Your task to perform on an android device: Go to Yahoo.com Image 0: 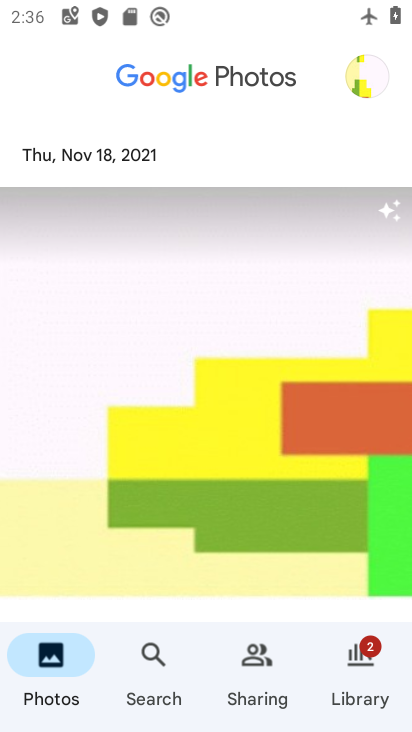
Step 0: press home button
Your task to perform on an android device: Go to Yahoo.com Image 1: 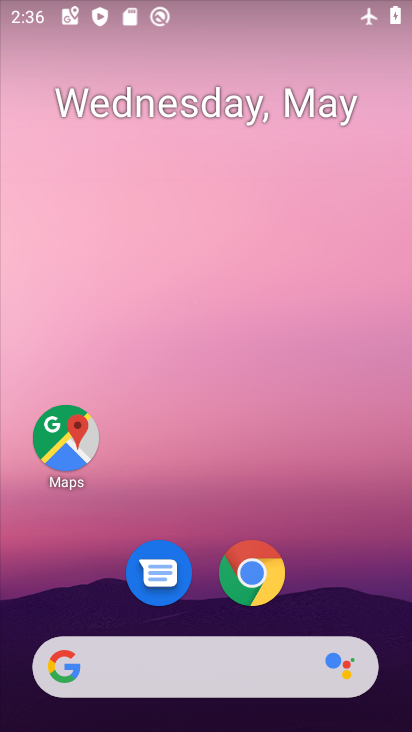
Step 1: click (256, 580)
Your task to perform on an android device: Go to Yahoo.com Image 2: 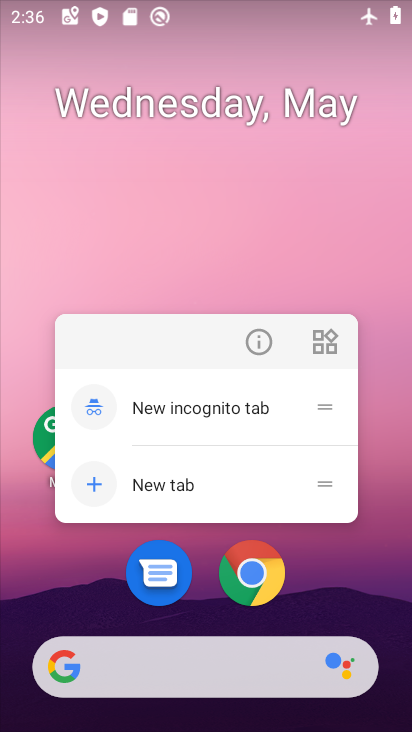
Step 2: click (245, 568)
Your task to perform on an android device: Go to Yahoo.com Image 3: 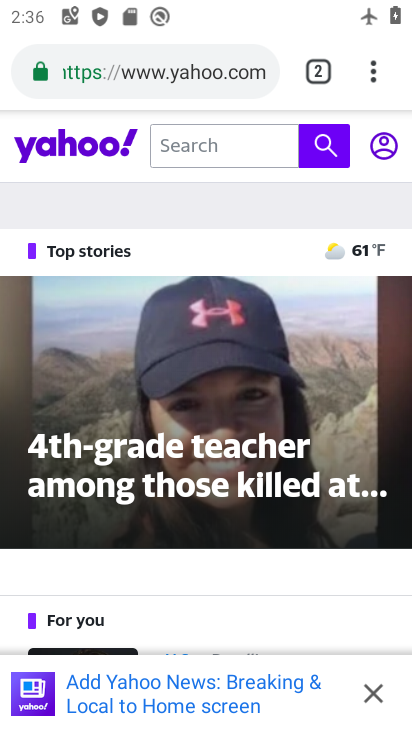
Step 3: task complete